Your task to perform on an android device: Open accessibility settings Image 0: 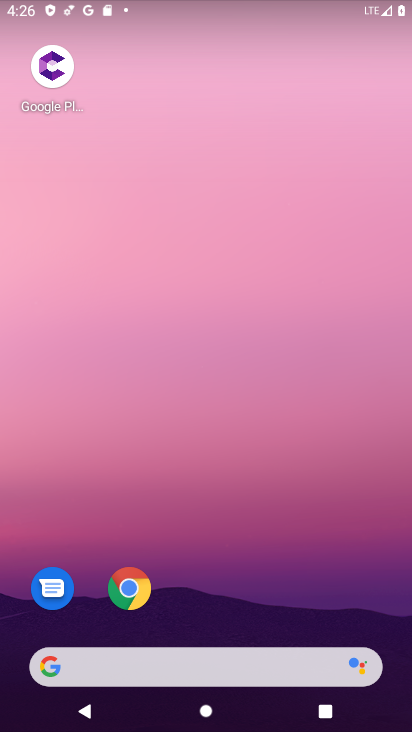
Step 0: drag from (206, 593) to (165, 66)
Your task to perform on an android device: Open accessibility settings Image 1: 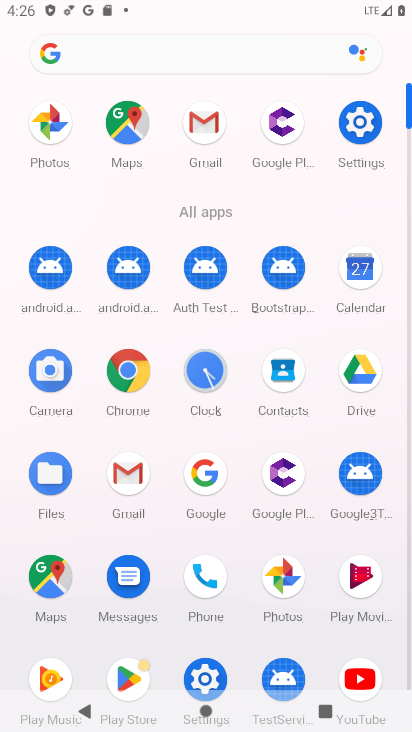
Step 1: click (356, 119)
Your task to perform on an android device: Open accessibility settings Image 2: 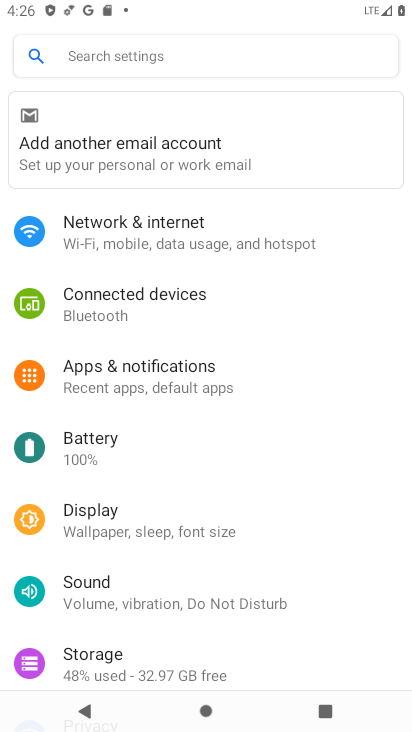
Step 2: drag from (117, 621) to (112, 251)
Your task to perform on an android device: Open accessibility settings Image 3: 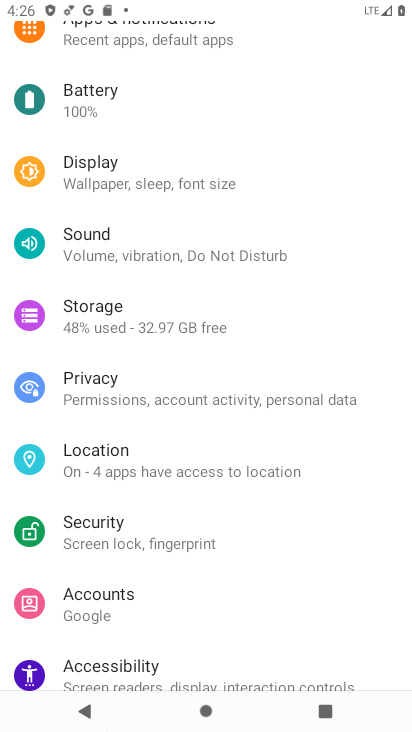
Step 3: click (108, 664)
Your task to perform on an android device: Open accessibility settings Image 4: 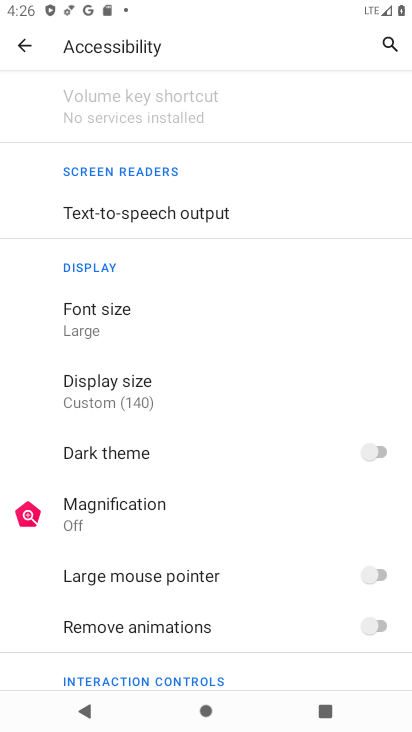
Step 4: task complete